Your task to perform on an android device: Open Yahoo.com Image 0: 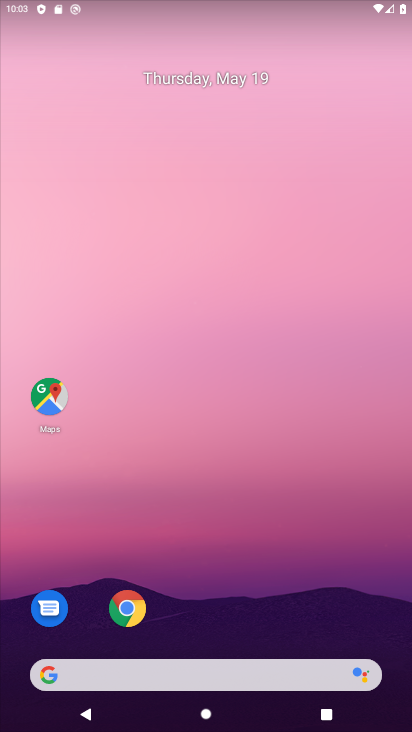
Step 0: click (131, 605)
Your task to perform on an android device: Open Yahoo.com Image 1: 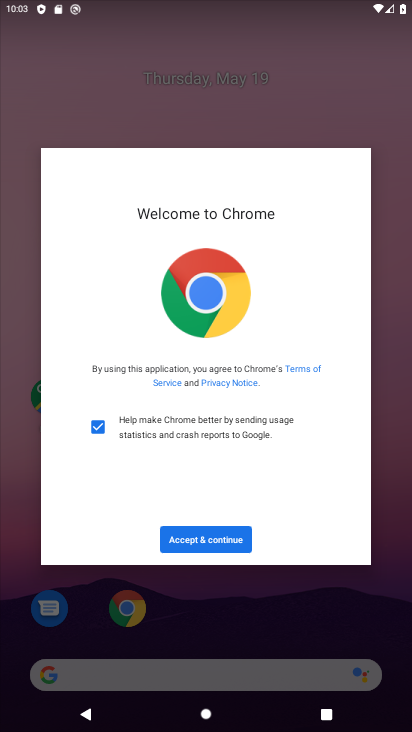
Step 1: click (234, 540)
Your task to perform on an android device: Open Yahoo.com Image 2: 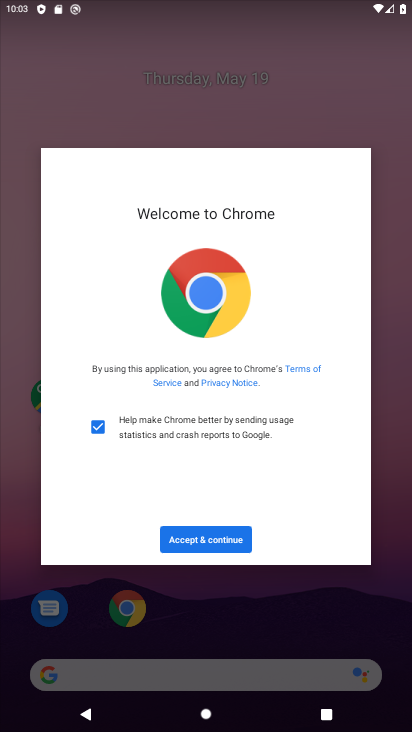
Step 2: click (234, 539)
Your task to perform on an android device: Open Yahoo.com Image 3: 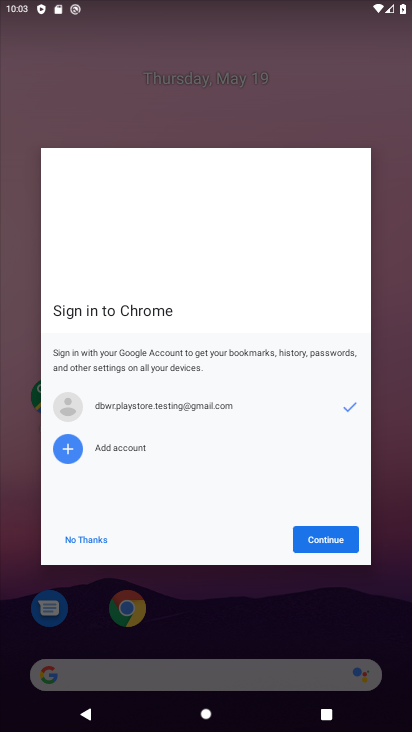
Step 3: click (352, 533)
Your task to perform on an android device: Open Yahoo.com Image 4: 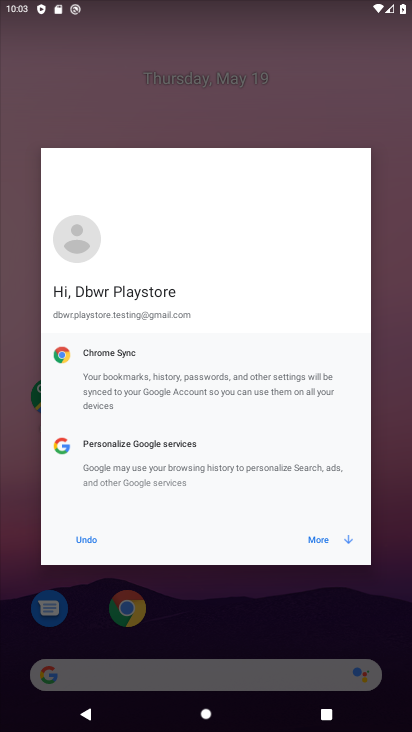
Step 4: click (343, 538)
Your task to perform on an android device: Open Yahoo.com Image 5: 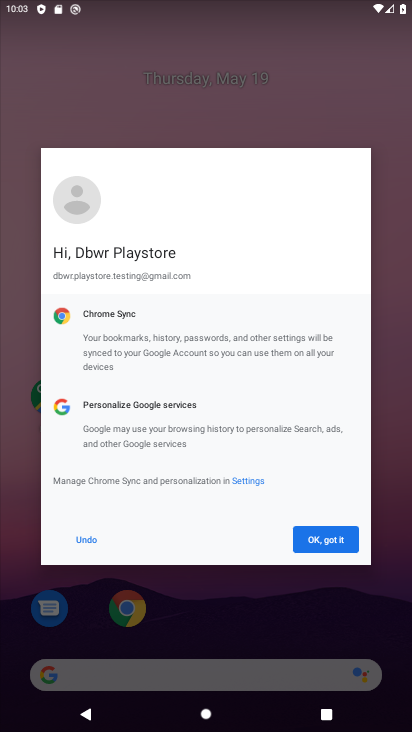
Step 5: click (301, 536)
Your task to perform on an android device: Open Yahoo.com Image 6: 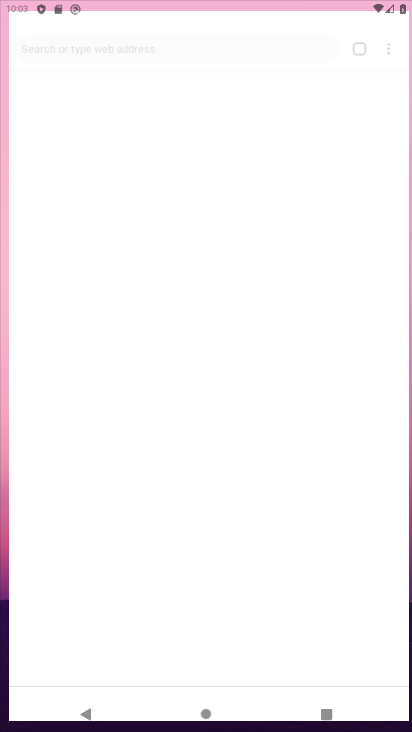
Step 6: click (301, 536)
Your task to perform on an android device: Open Yahoo.com Image 7: 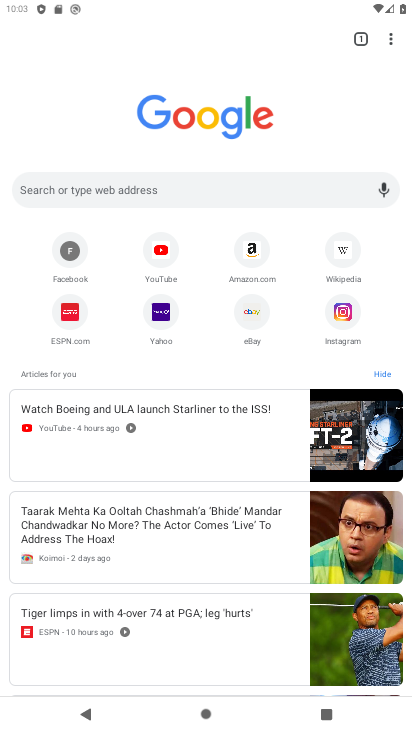
Step 7: click (129, 193)
Your task to perform on an android device: Open Yahoo.com Image 8: 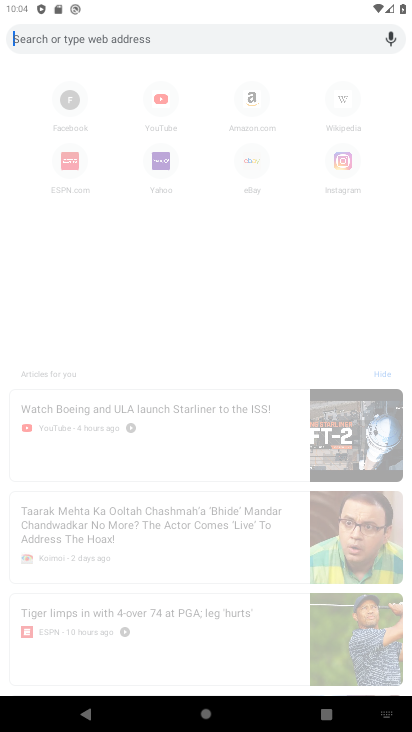
Step 8: type "Yahoo.com"
Your task to perform on an android device: Open Yahoo.com Image 9: 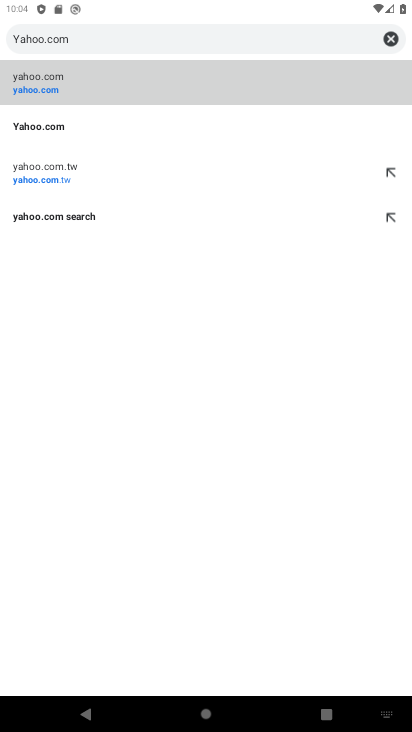
Step 9: click (51, 124)
Your task to perform on an android device: Open Yahoo.com Image 10: 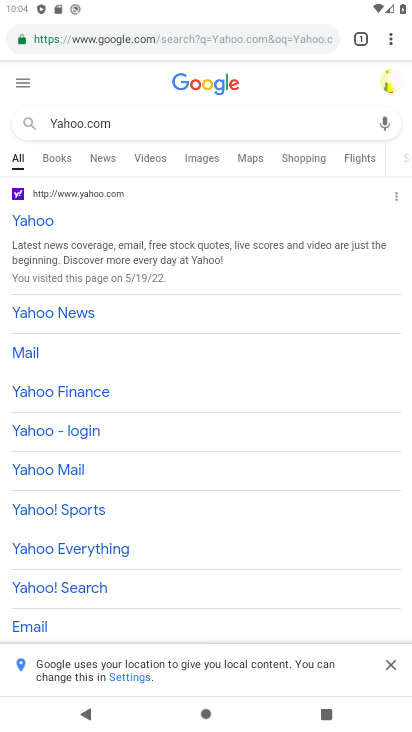
Step 10: task complete